Your task to perform on an android device: Open calendar and show me the fourth week of next month Image 0: 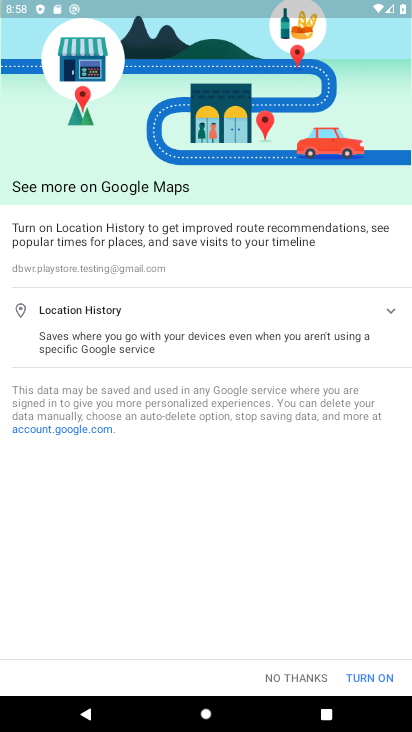
Step 0: press home button
Your task to perform on an android device: Open calendar and show me the fourth week of next month Image 1: 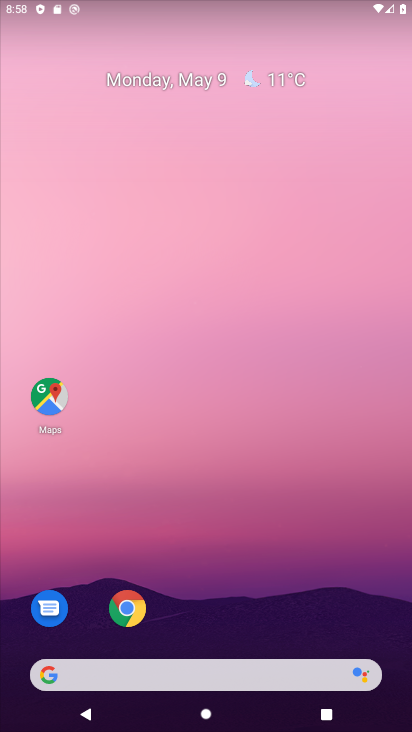
Step 1: drag from (166, 619) to (209, 223)
Your task to perform on an android device: Open calendar and show me the fourth week of next month Image 2: 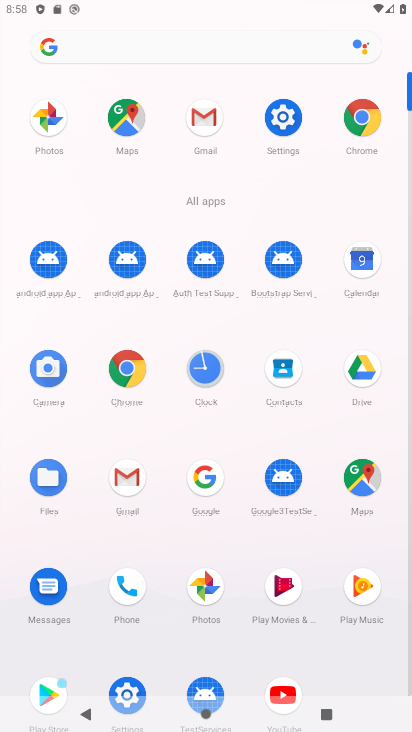
Step 2: click (366, 262)
Your task to perform on an android device: Open calendar and show me the fourth week of next month Image 3: 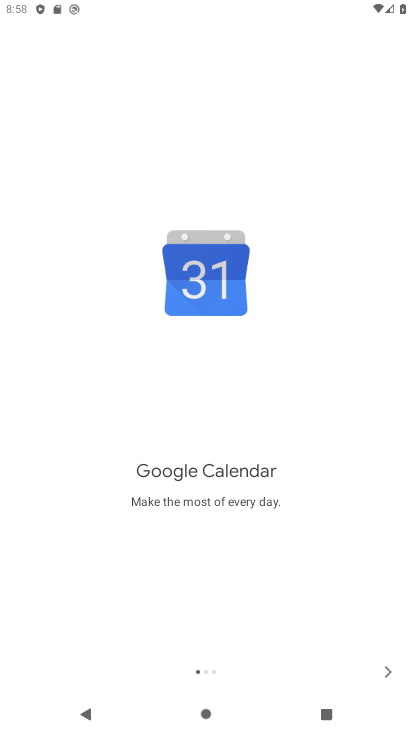
Step 3: click (389, 670)
Your task to perform on an android device: Open calendar and show me the fourth week of next month Image 4: 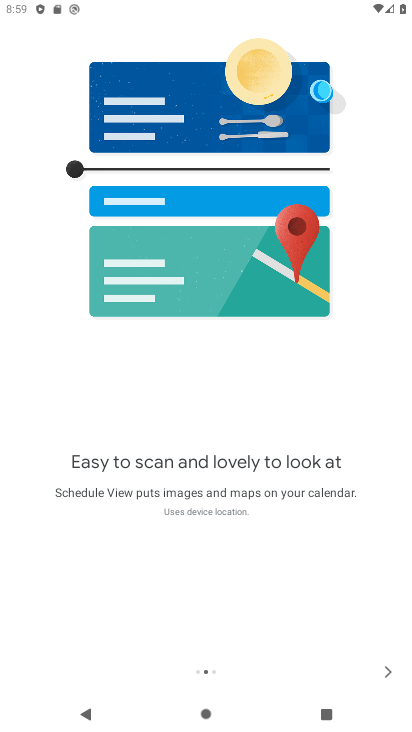
Step 4: click (389, 670)
Your task to perform on an android device: Open calendar and show me the fourth week of next month Image 5: 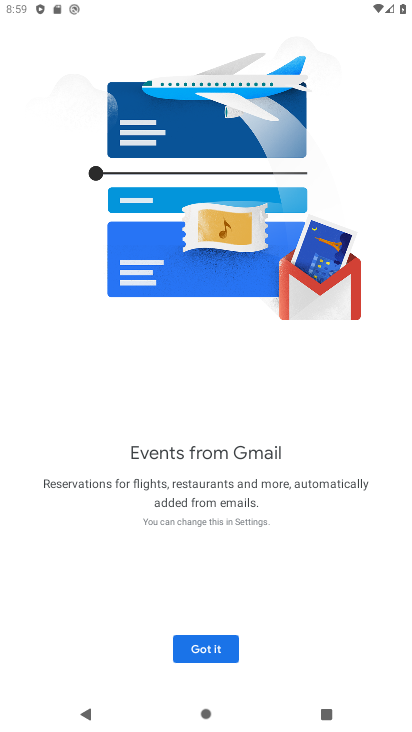
Step 5: click (389, 670)
Your task to perform on an android device: Open calendar and show me the fourth week of next month Image 6: 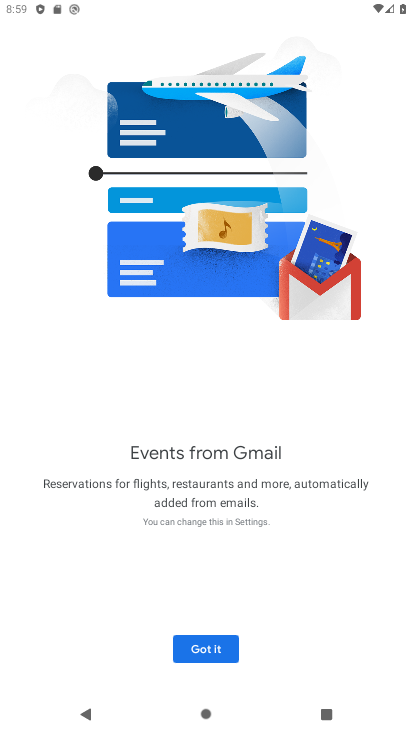
Step 6: click (221, 655)
Your task to perform on an android device: Open calendar and show me the fourth week of next month Image 7: 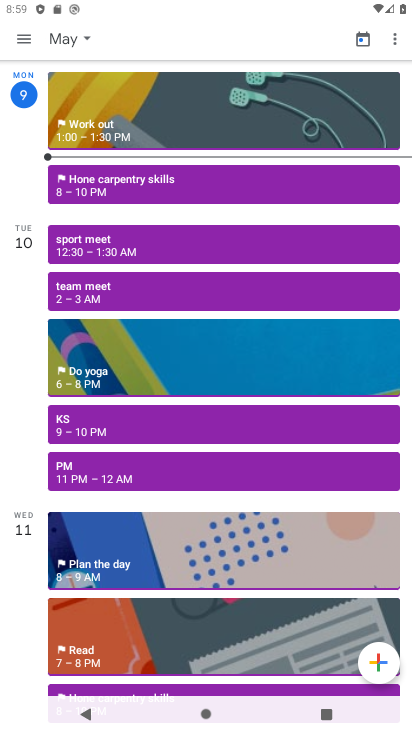
Step 7: click (73, 42)
Your task to perform on an android device: Open calendar and show me the fourth week of next month Image 8: 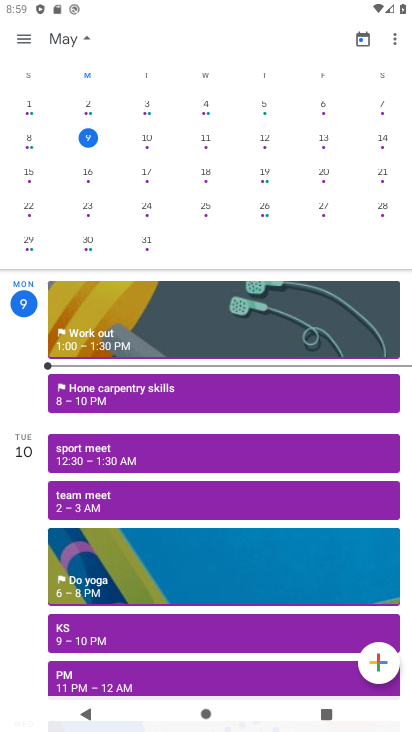
Step 8: drag from (391, 221) to (52, 194)
Your task to perform on an android device: Open calendar and show me the fourth week of next month Image 9: 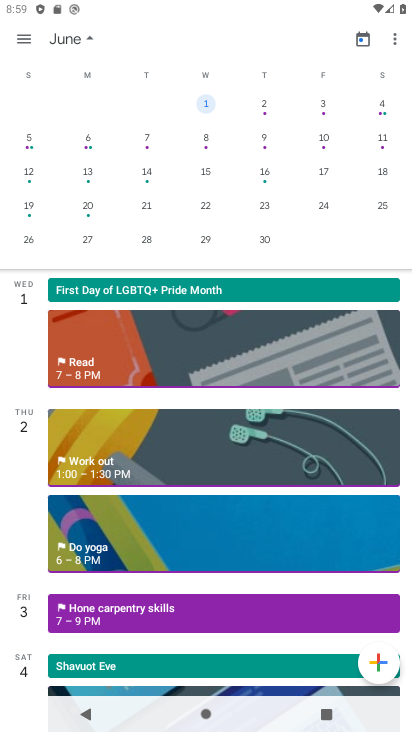
Step 9: click (266, 199)
Your task to perform on an android device: Open calendar and show me the fourth week of next month Image 10: 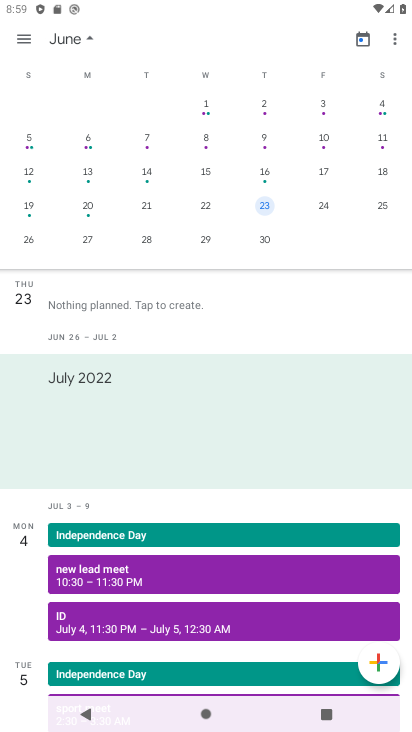
Step 10: click (18, 34)
Your task to perform on an android device: Open calendar and show me the fourth week of next month Image 11: 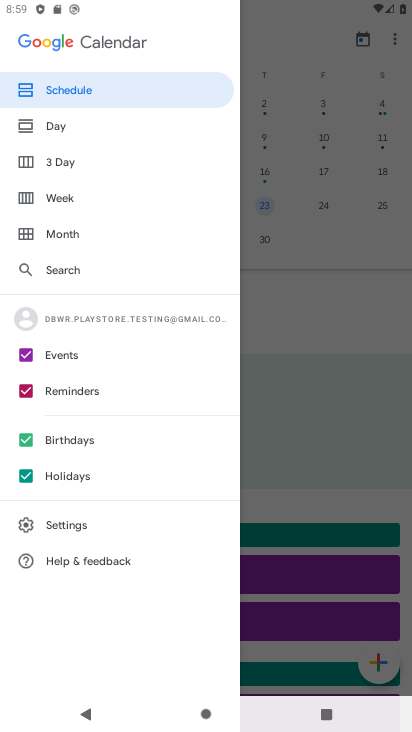
Step 11: click (73, 193)
Your task to perform on an android device: Open calendar and show me the fourth week of next month Image 12: 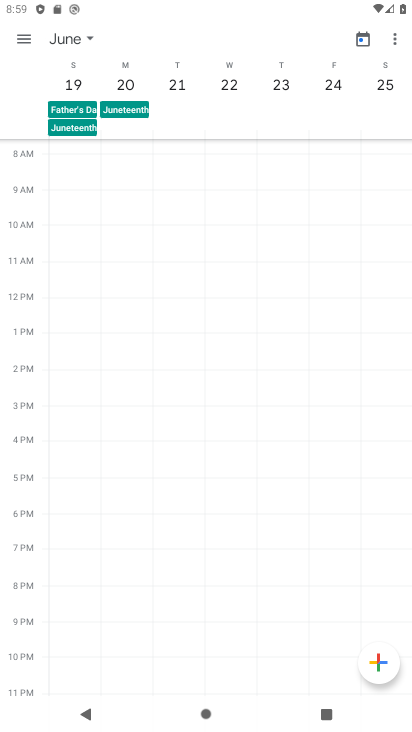
Step 12: task complete